Your task to perform on an android device: Open Google Chrome and open the bookmarks view Image 0: 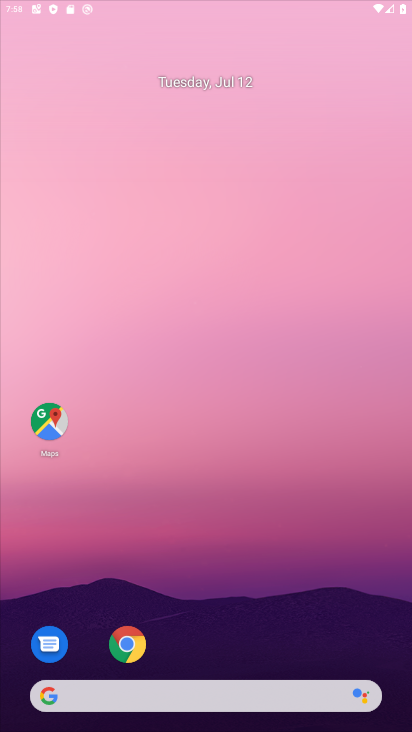
Step 0: drag from (274, 190) to (266, 3)
Your task to perform on an android device: Open Google Chrome and open the bookmarks view Image 1: 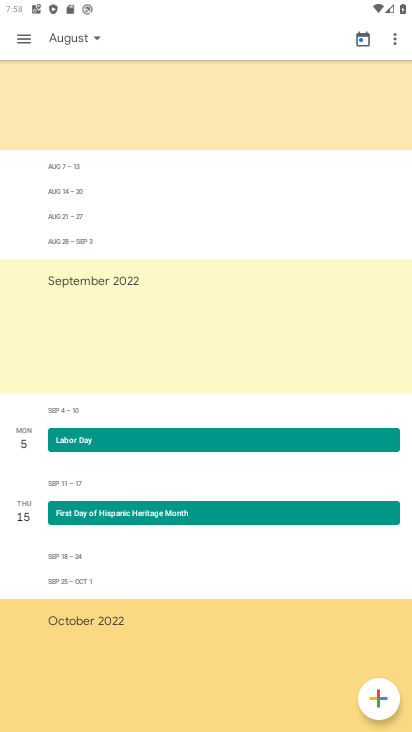
Step 1: press home button
Your task to perform on an android device: Open Google Chrome and open the bookmarks view Image 2: 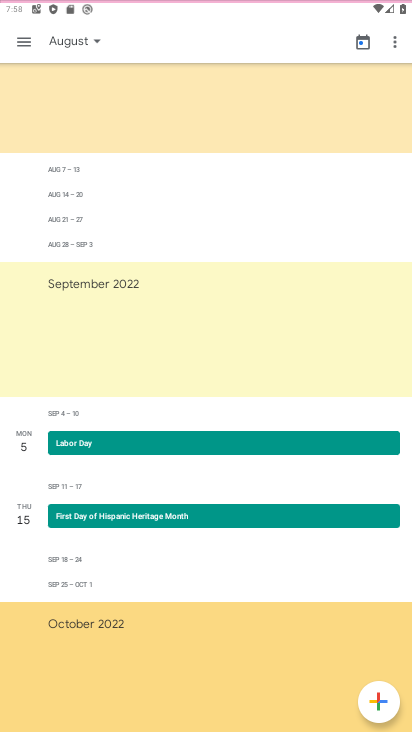
Step 2: drag from (264, 17) to (208, 21)
Your task to perform on an android device: Open Google Chrome and open the bookmarks view Image 3: 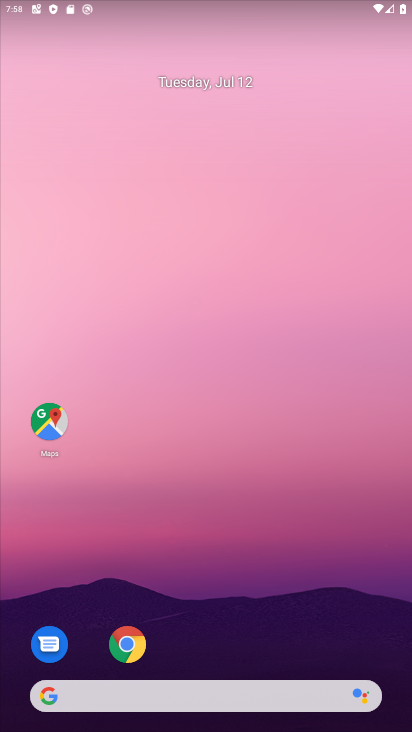
Step 3: drag from (197, 654) to (227, 89)
Your task to perform on an android device: Open Google Chrome and open the bookmarks view Image 4: 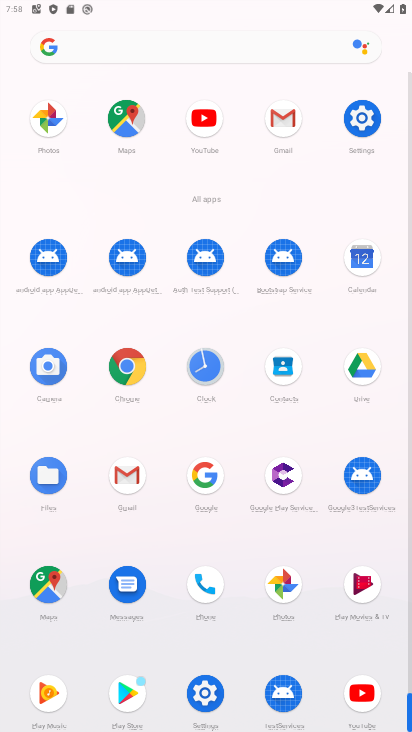
Step 4: click (123, 366)
Your task to perform on an android device: Open Google Chrome and open the bookmarks view Image 5: 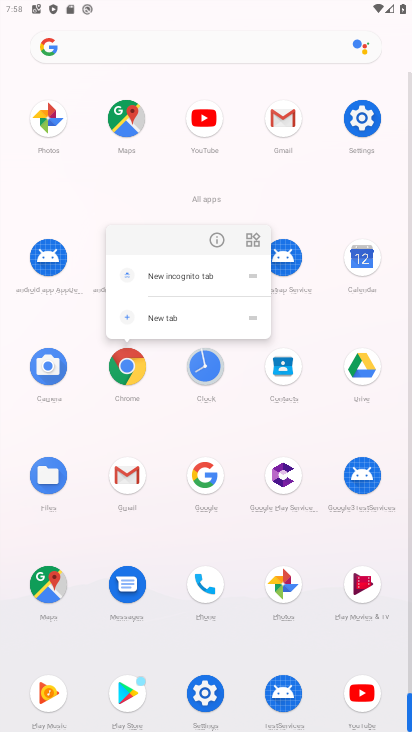
Step 5: click (218, 241)
Your task to perform on an android device: Open Google Chrome and open the bookmarks view Image 6: 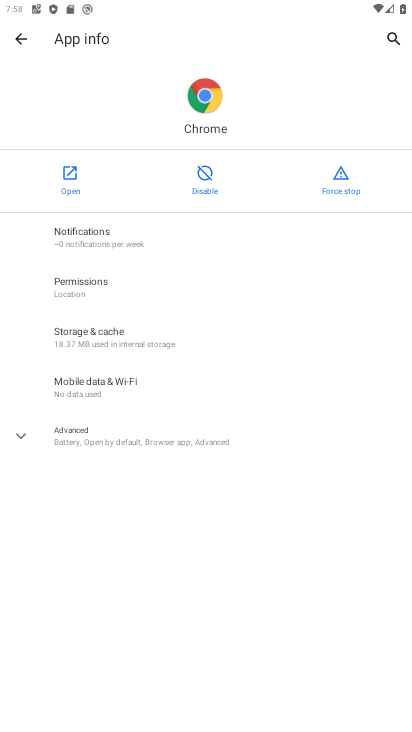
Step 6: click (79, 184)
Your task to perform on an android device: Open Google Chrome and open the bookmarks view Image 7: 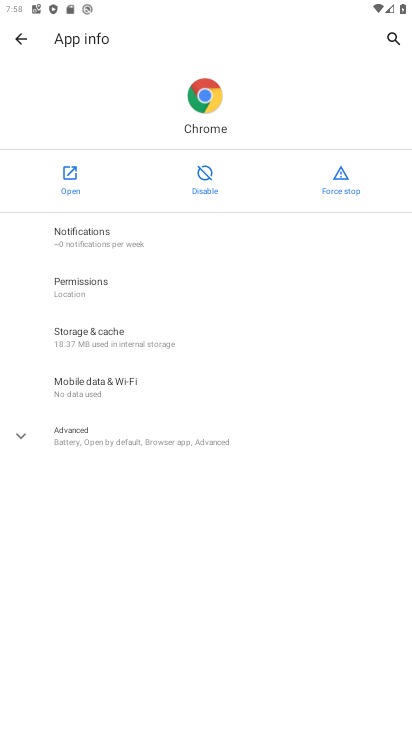
Step 7: click (79, 184)
Your task to perform on an android device: Open Google Chrome and open the bookmarks view Image 8: 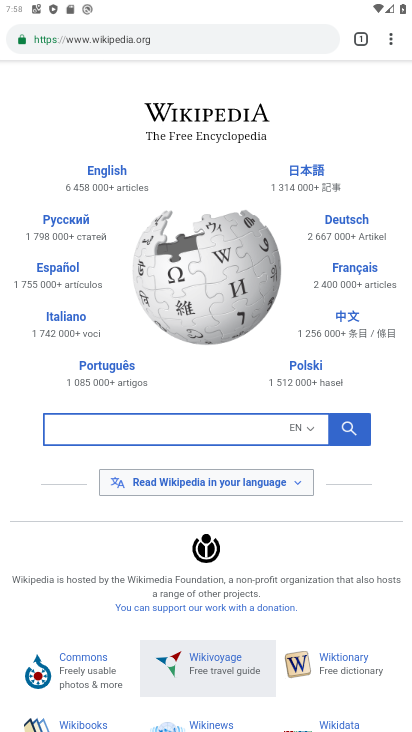
Step 8: click (394, 35)
Your task to perform on an android device: Open Google Chrome and open the bookmarks view Image 9: 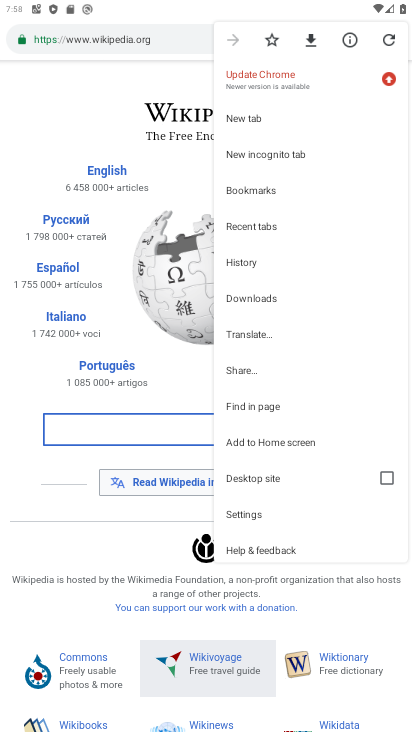
Step 9: click (277, 185)
Your task to perform on an android device: Open Google Chrome and open the bookmarks view Image 10: 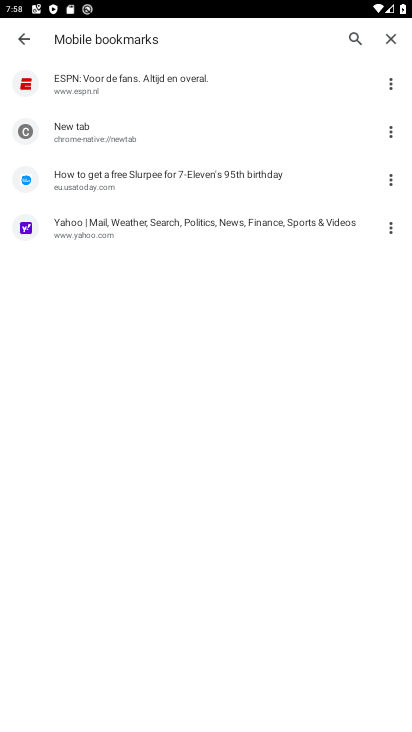
Step 10: task complete